Your task to perform on an android device: turn off notifications in google photos Image 0: 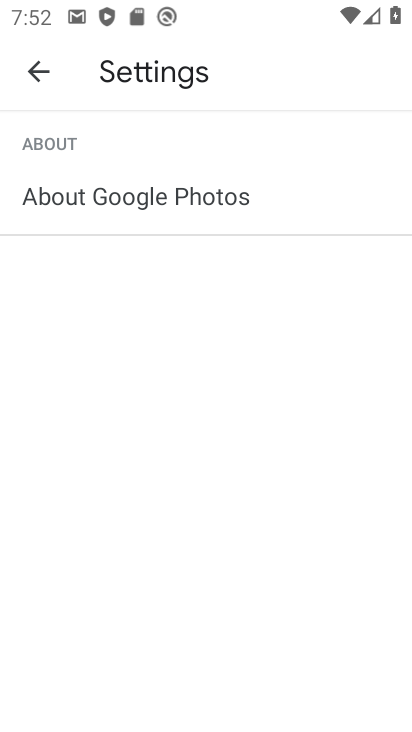
Step 0: press home button
Your task to perform on an android device: turn off notifications in google photos Image 1: 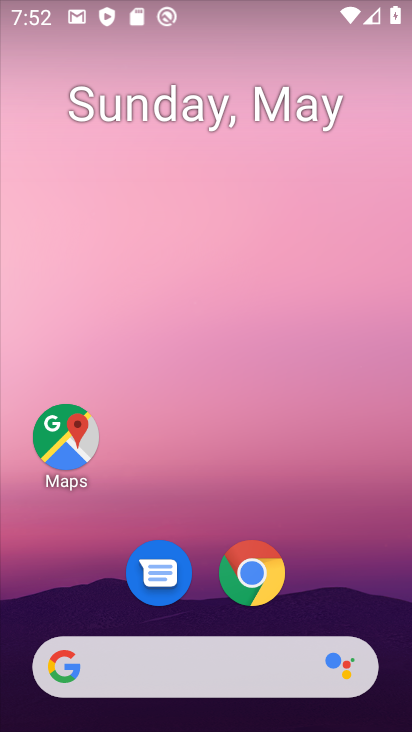
Step 1: drag from (222, 507) to (230, 0)
Your task to perform on an android device: turn off notifications in google photos Image 2: 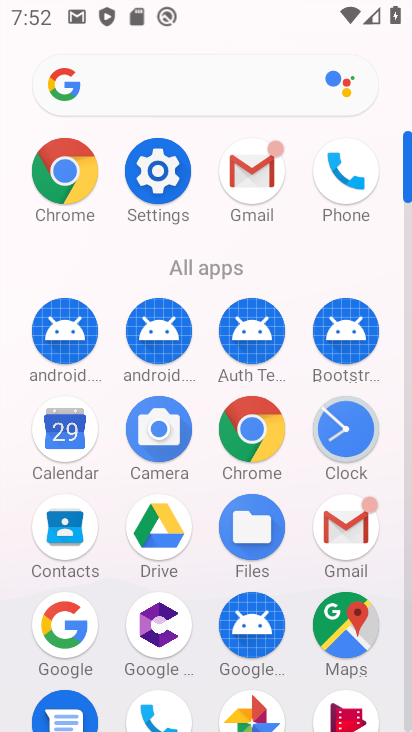
Step 2: drag from (196, 485) to (212, 230)
Your task to perform on an android device: turn off notifications in google photos Image 3: 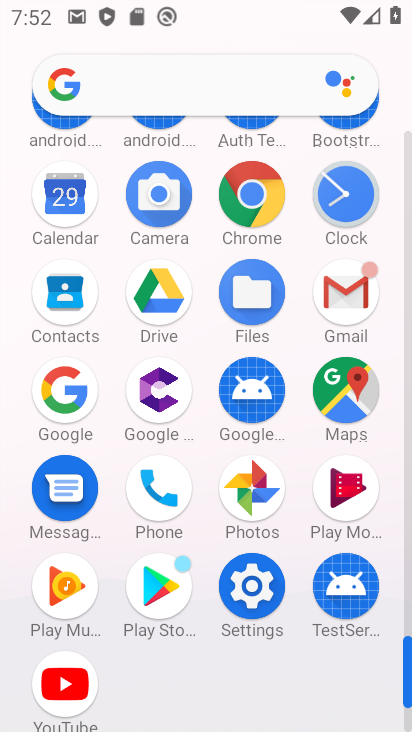
Step 3: click (254, 494)
Your task to perform on an android device: turn off notifications in google photos Image 4: 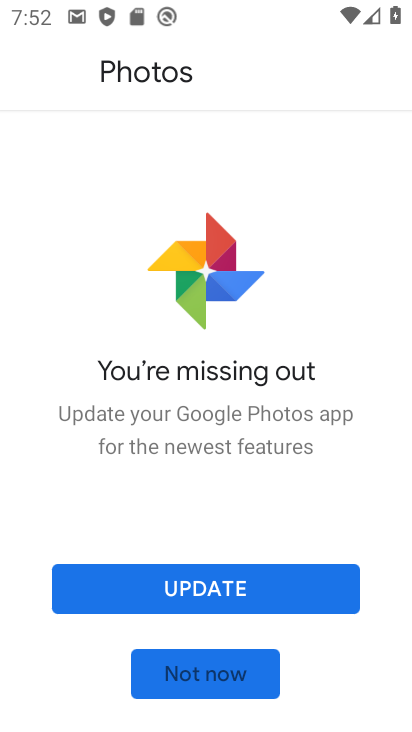
Step 4: click (252, 670)
Your task to perform on an android device: turn off notifications in google photos Image 5: 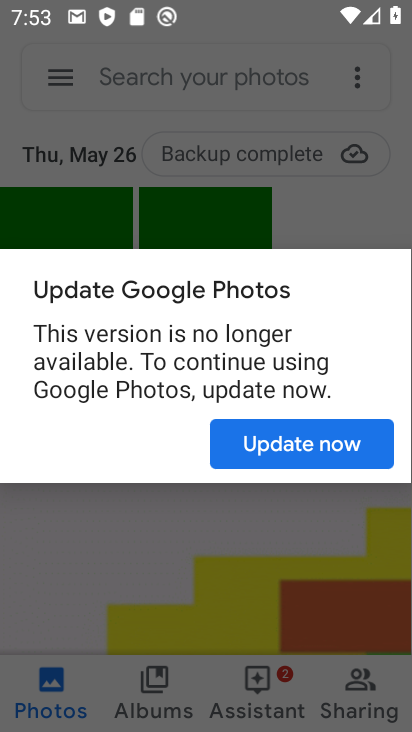
Step 5: click (353, 444)
Your task to perform on an android device: turn off notifications in google photos Image 6: 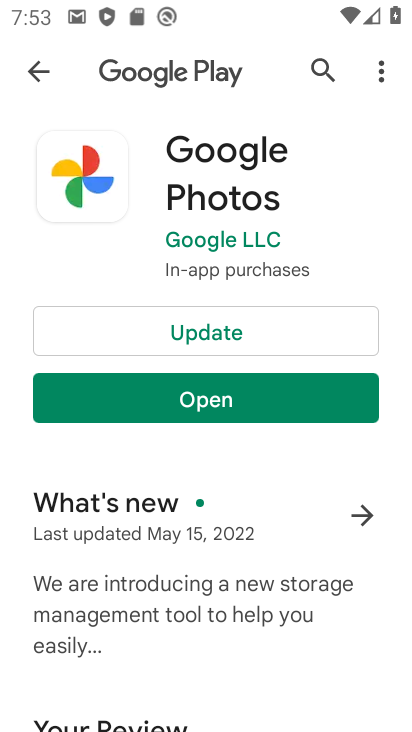
Step 6: click (269, 391)
Your task to perform on an android device: turn off notifications in google photos Image 7: 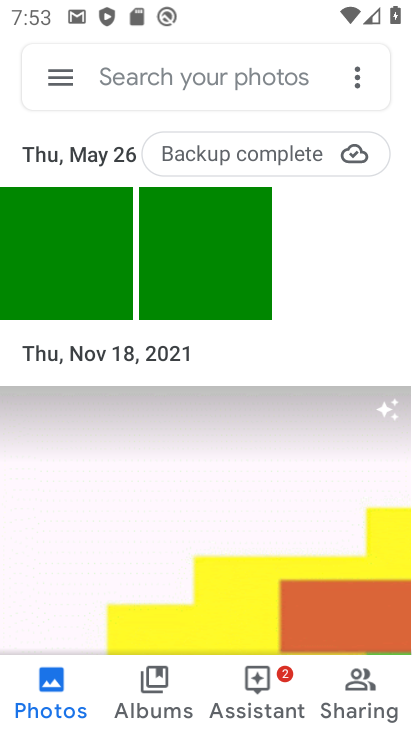
Step 7: click (62, 62)
Your task to perform on an android device: turn off notifications in google photos Image 8: 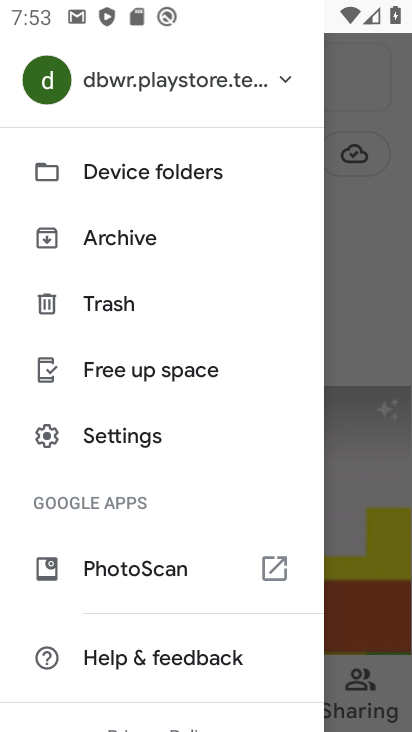
Step 8: click (149, 430)
Your task to perform on an android device: turn off notifications in google photos Image 9: 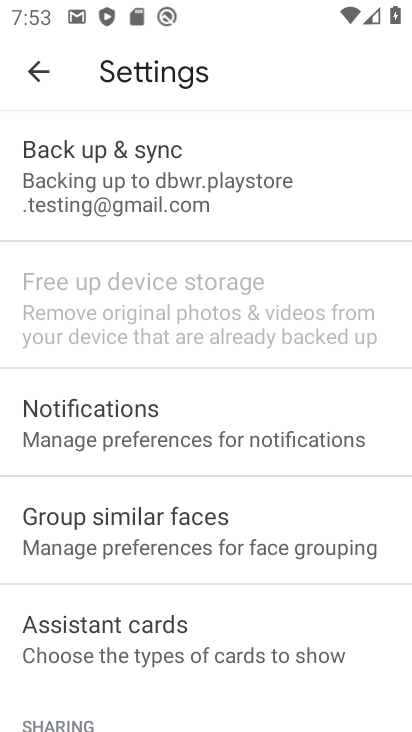
Step 9: click (150, 426)
Your task to perform on an android device: turn off notifications in google photos Image 10: 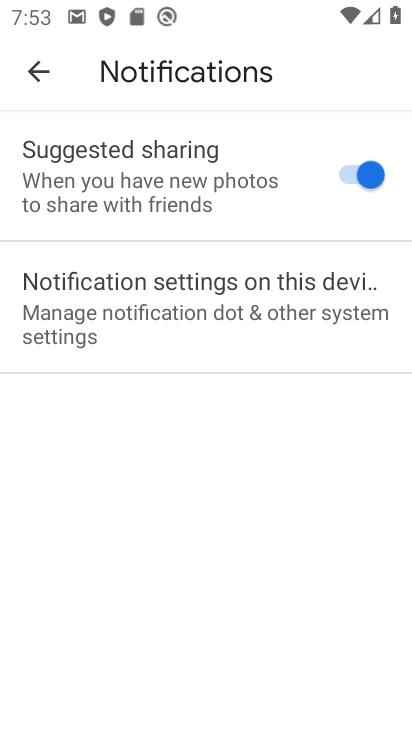
Step 10: click (205, 312)
Your task to perform on an android device: turn off notifications in google photos Image 11: 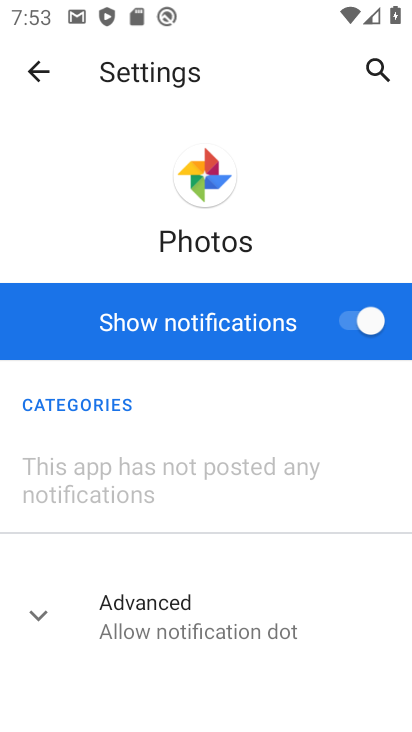
Step 11: click (353, 321)
Your task to perform on an android device: turn off notifications in google photos Image 12: 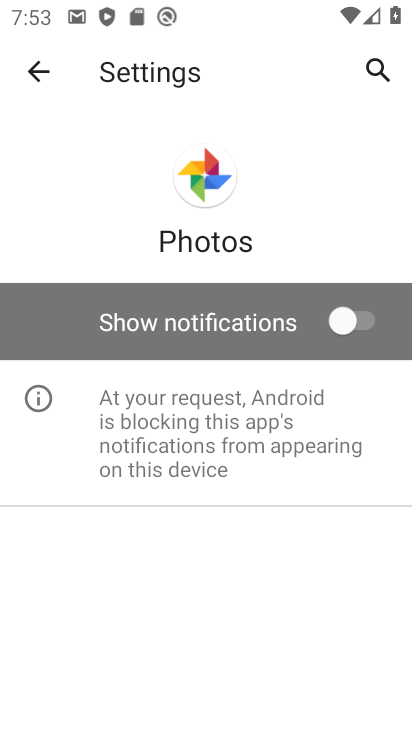
Step 12: task complete